Your task to perform on an android device: Is it going to rain tomorrow? Image 0: 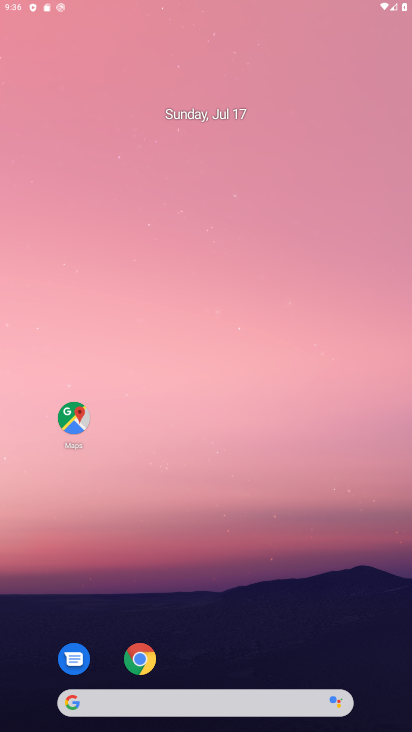
Step 0: click (137, 652)
Your task to perform on an android device: Is it going to rain tomorrow? Image 1: 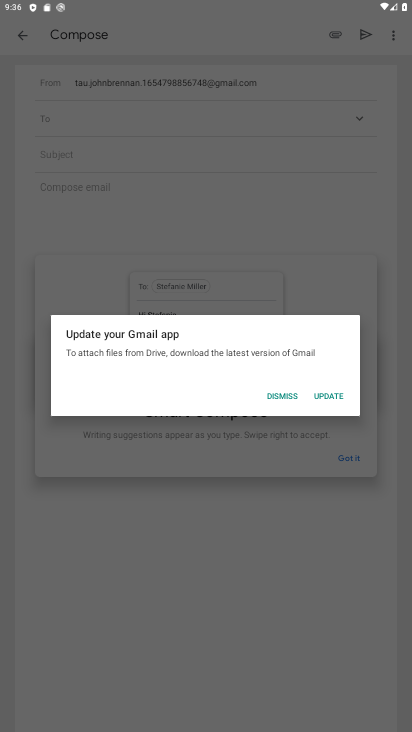
Step 1: press home button
Your task to perform on an android device: Is it going to rain tomorrow? Image 2: 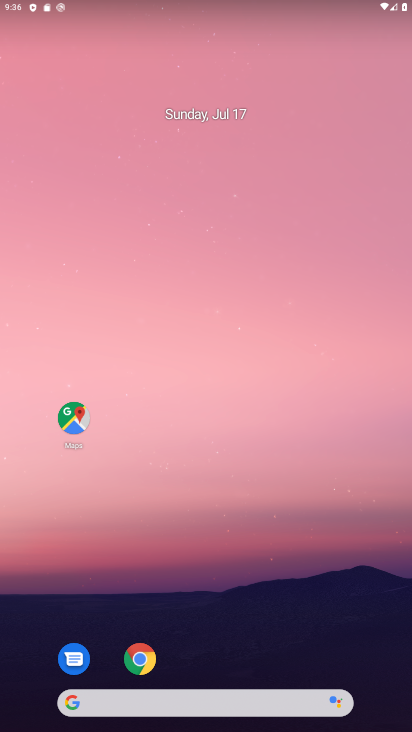
Step 2: click (152, 706)
Your task to perform on an android device: Is it going to rain tomorrow? Image 3: 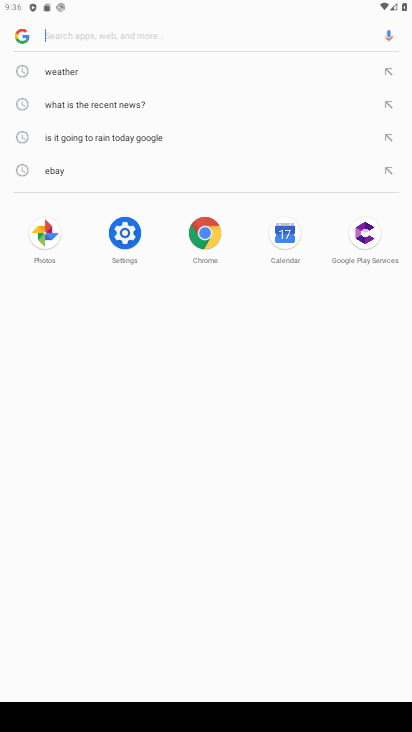
Step 3: type "is it going to rain tomorrow?"
Your task to perform on an android device: Is it going to rain tomorrow? Image 4: 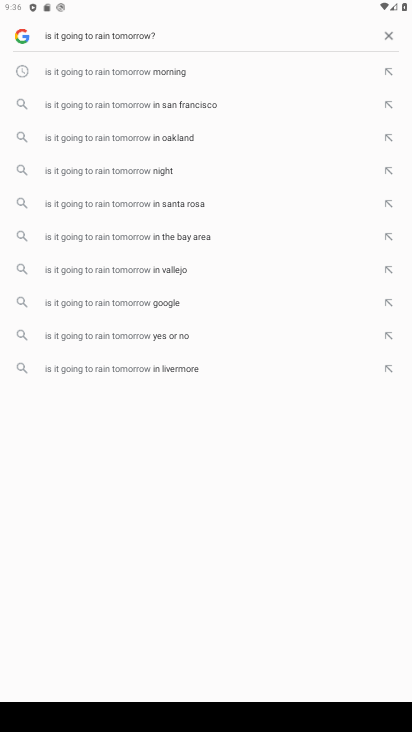
Step 4: click (102, 295)
Your task to perform on an android device: Is it going to rain tomorrow? Image 5: 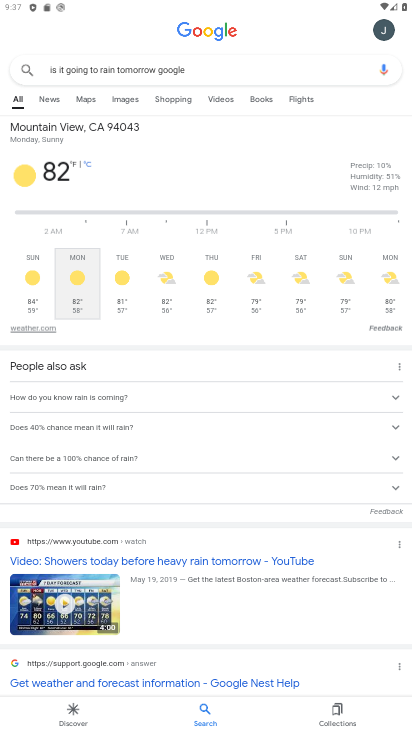
Step 5: task complete